Your task to perform on an android device: Search for 35 best books of all time Image 0: 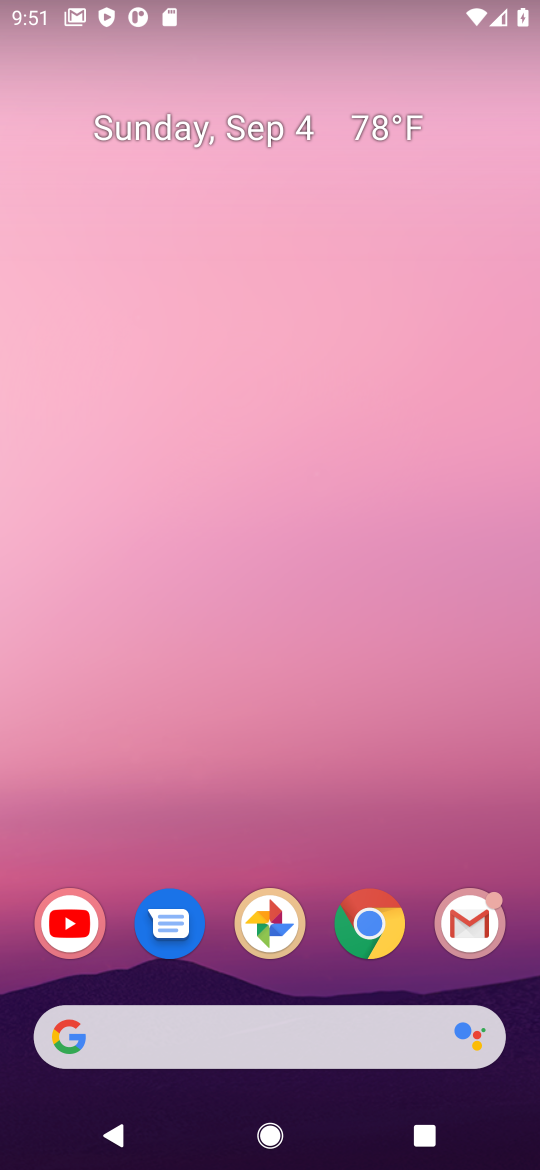
Step 0: click (360, 913)
Your task to perform on an android device: Search for 35 best books of all time Image 1: 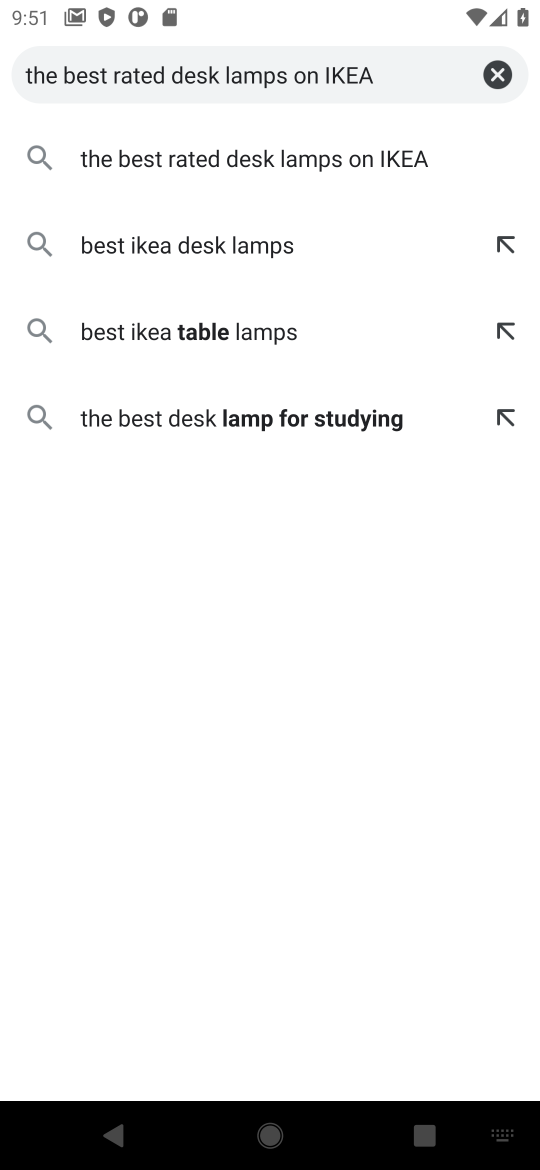
Step 1: click (496, 78)
Your task to perform on an android device: Search for 35 best books of all time Image 2: 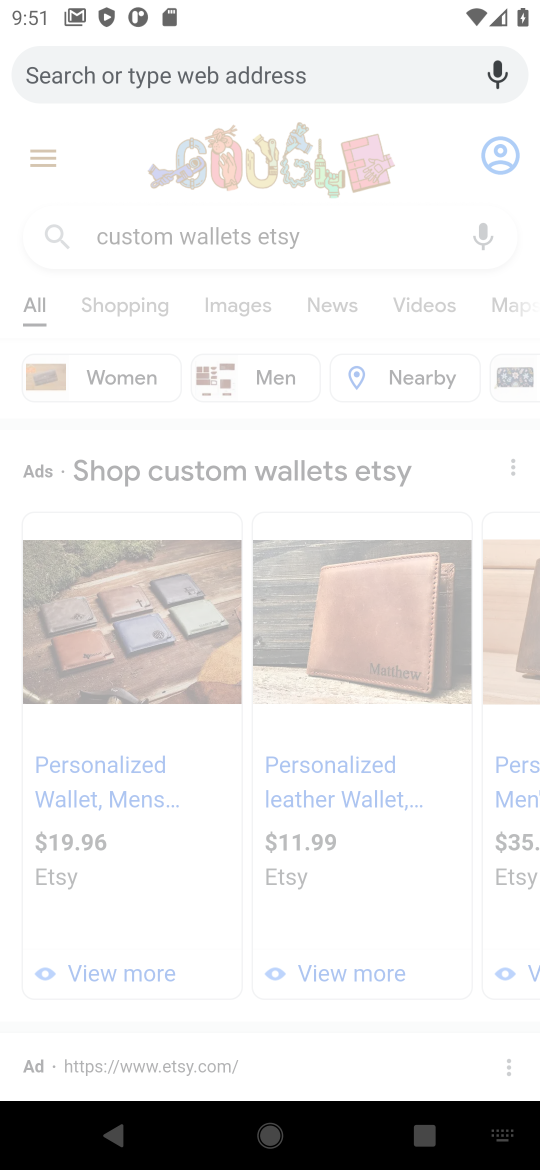
Step 2: type "35 best books of all time"
Your task to perform on an android device: Search for 35 best books of all time Image 3: 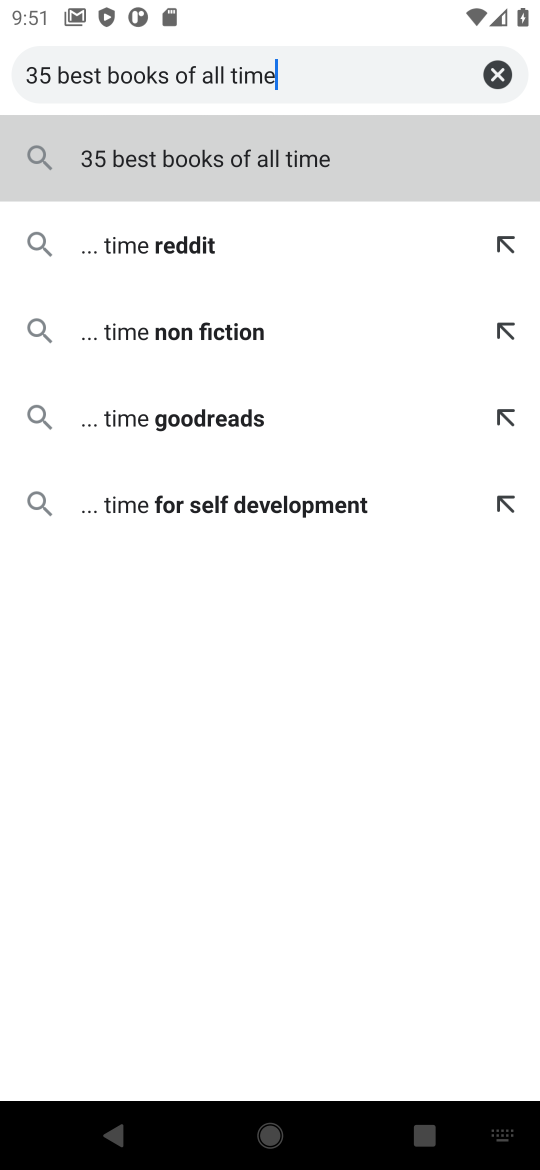
Step 3: click (239, 166)
Your task to perform on an android device: Search for 35 best books of all time Image 4: 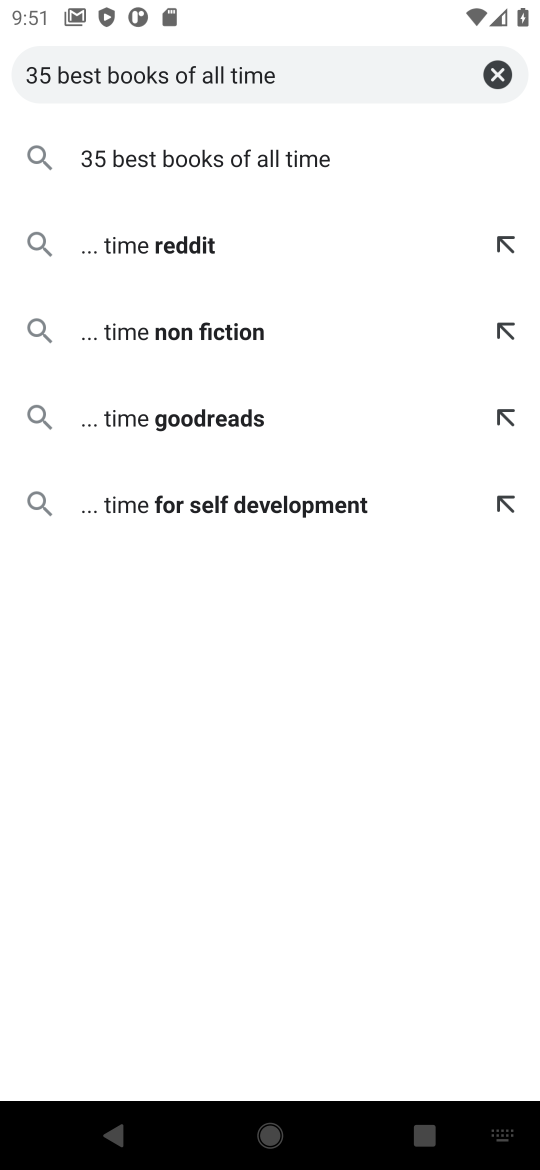
Step 4: click (239, 166)
Your task to perform on an android device: Search for 35 best books of all time Image 5: 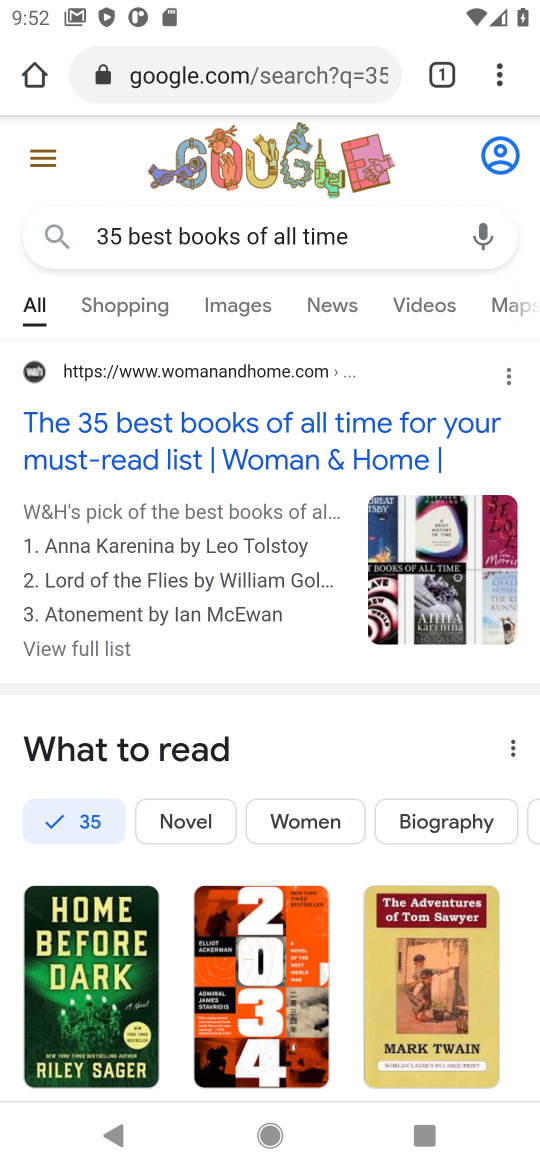
Step 5: task complete